Your task to perform on an android device: turn off location history Image 0: 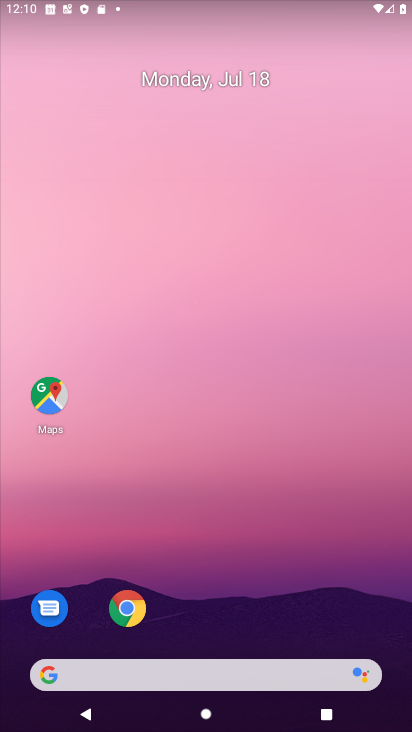
Step 0: click (56, 392)
Your task to perform on an android device: turn off location history Image 1: 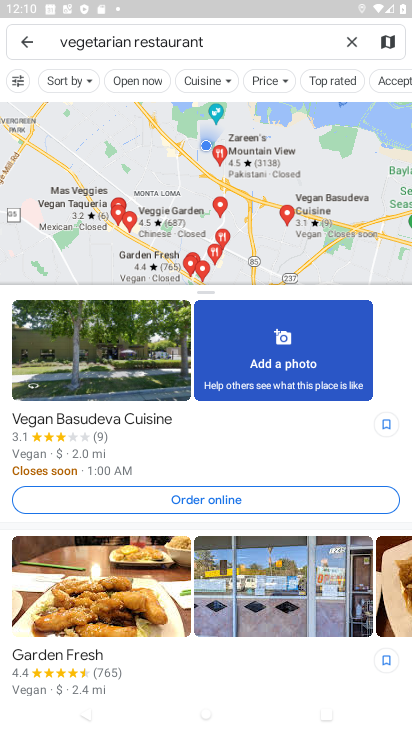
Step 1: click (17, 47)
Your task to perform on an android device: turn off location history Image 2: 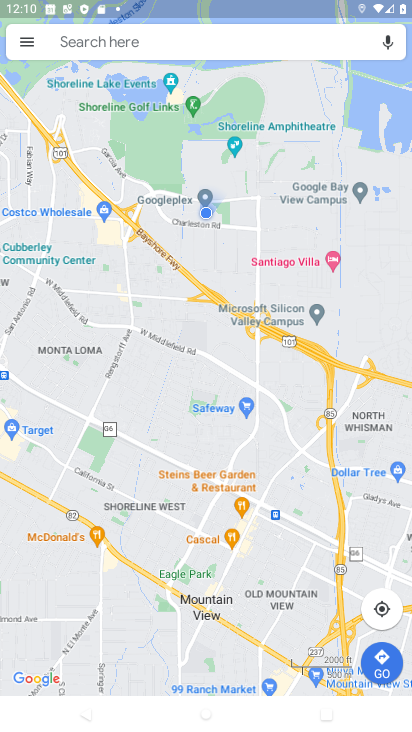
Step 2: click (18, 42)
Your task to perform on an android device: turn off location history Image 3: 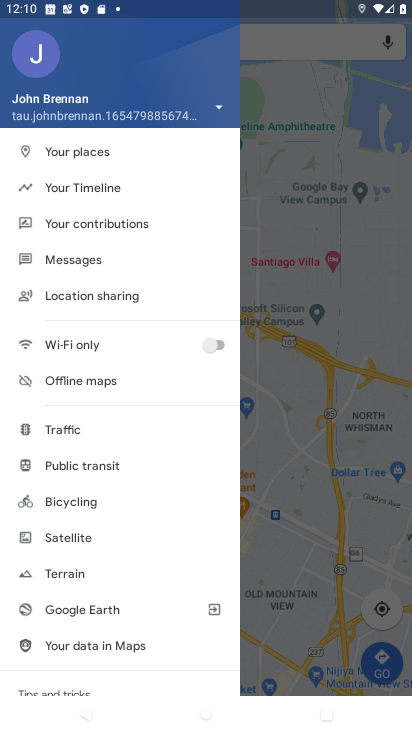
Step 3: click (128, 188)
Your task to perform on an android device: turn off location history Image 4: 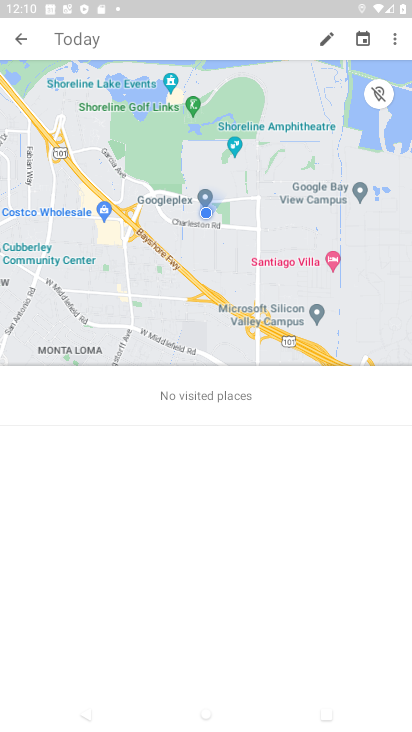
Step 4: click (401, 47)
Your task to perform on an android device: turn off location history Image 5: 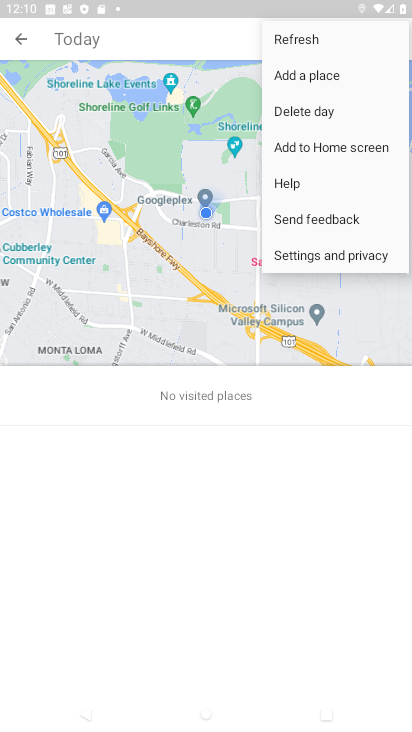
Step 5: click (345, 266)
Your task to perform on an android device: turn off location history Image 6: 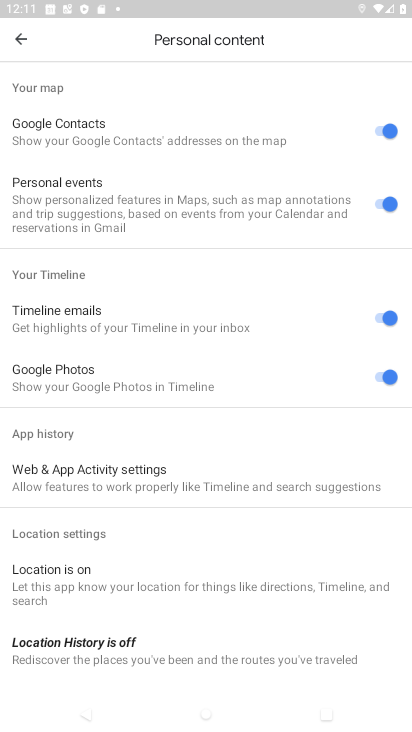
Step 6: click (154, 652)
Your task to perform on an android device: turn off location history Image 7: 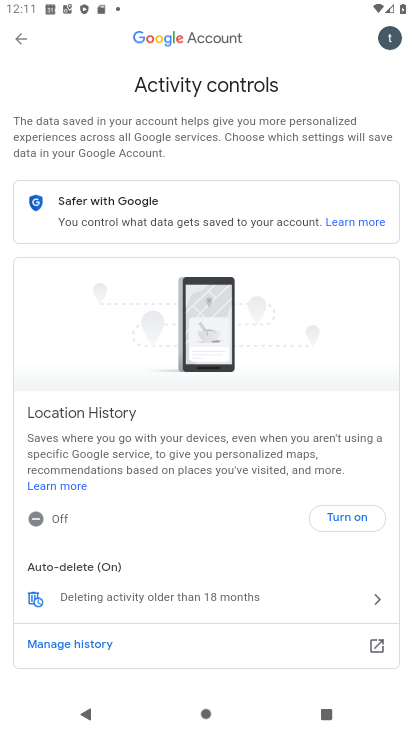
Step 7: task complete